Your task to perform on an android device: turn off location history Image 0: 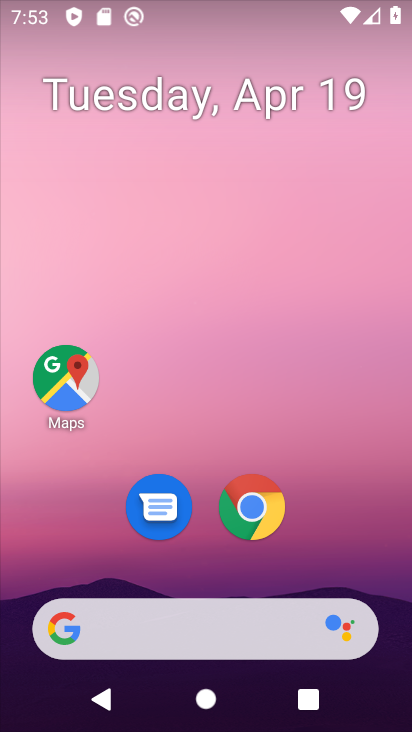
Step 0: drag from (331, 527) to (220, 71)
Your task to perform on an android device: turn off location history Image 1: 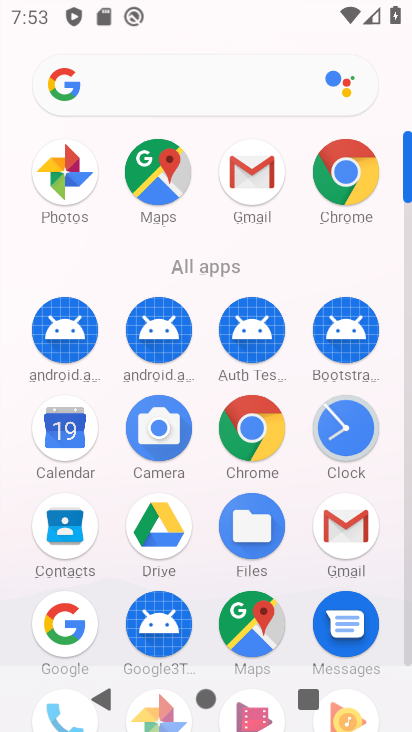
Step 1: drag from (178, 614) to (173, 182)
Your task to perform on an android device: turn off location history Image 2: 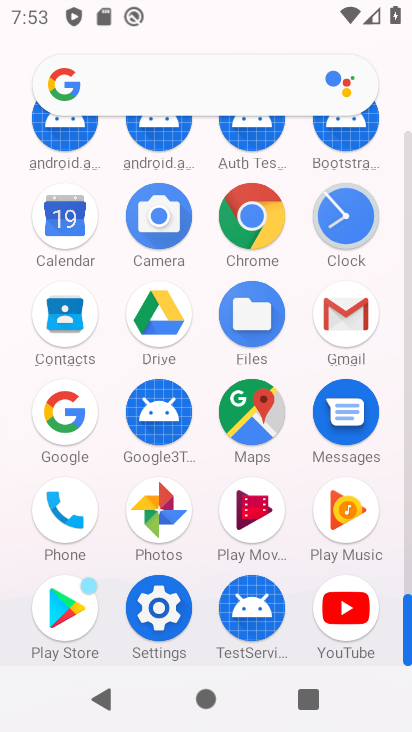
Step 2: click (164, 599)
Your task to perform on an android device: turn off location history Image 3: 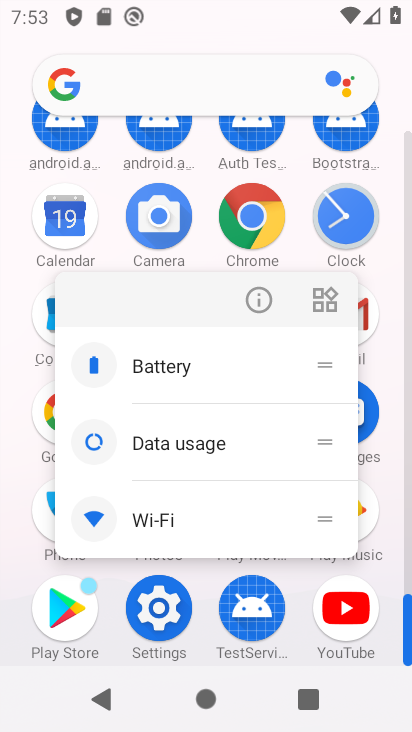
Step 3: click (164, 599)
Your task to perform on an android device: turn off location history Image 4: 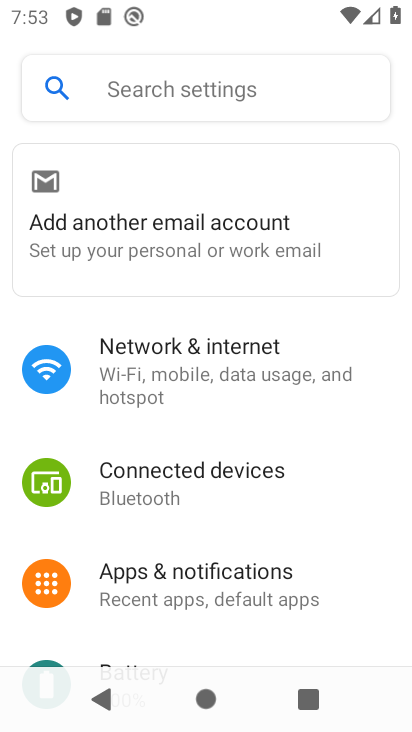
Step 4: drag from (187, 648) to (179, 218)
Your task to perform on an android device: turn off location history Image 5: 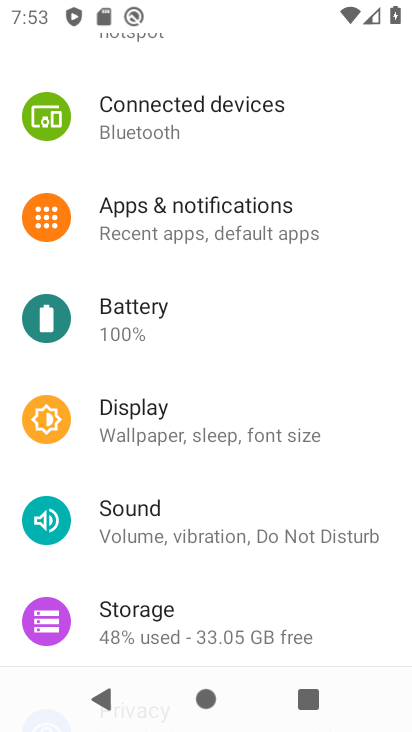
Step 5: drag from (133, 541) to (121, 178)
Your task to perform on an android device: turn off location history Image 6: 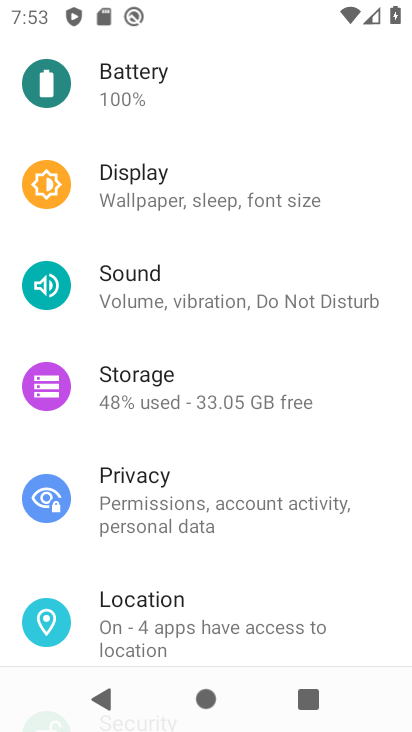
Step 6: click (116, 615)
Your task to perform on an android device: turn off location history Image 7: 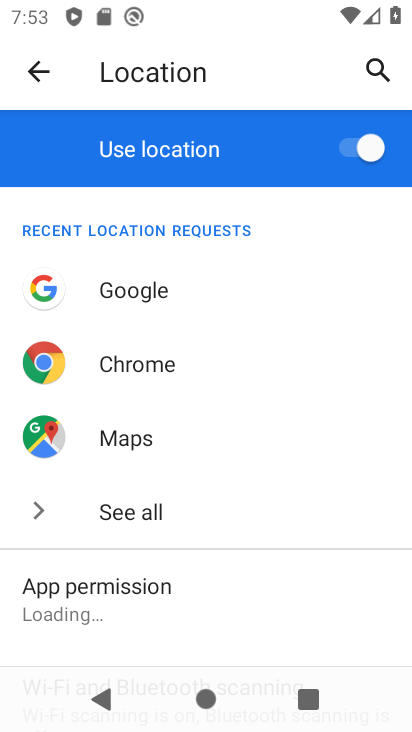
Step 7: drag from (212, 647) to (251, 272)
Your task to perform on an android device: turn off location history Image 8: 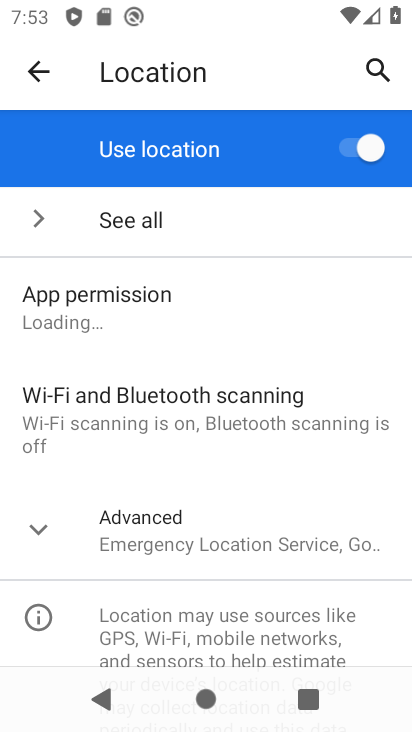
Step 8: click (224, 536)
Your task to perform on an android device: turn off location history Image 9: 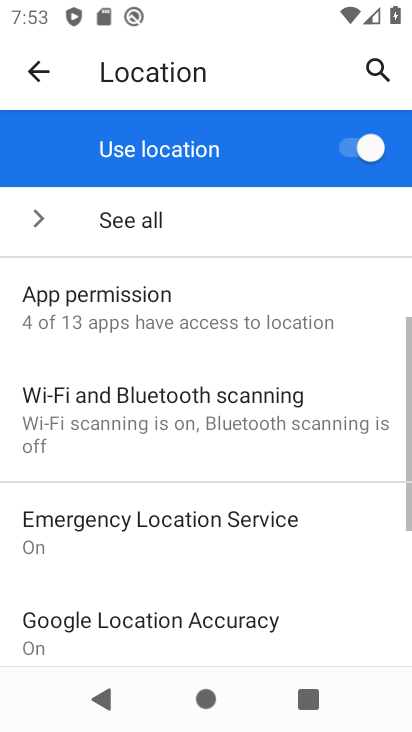
Step 9: drag from (203, 644) to (199, 438)
Your task to perform on an android device: turn off location history Image 10: 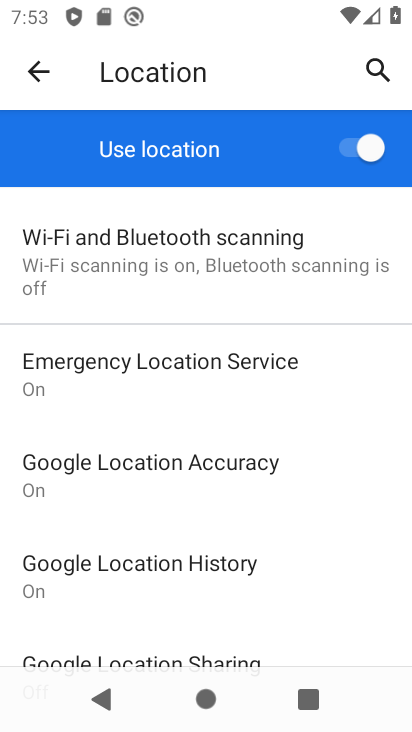
Step 10: click (145, 575)
Your task to perform on an android device: turn off location history Image 11: 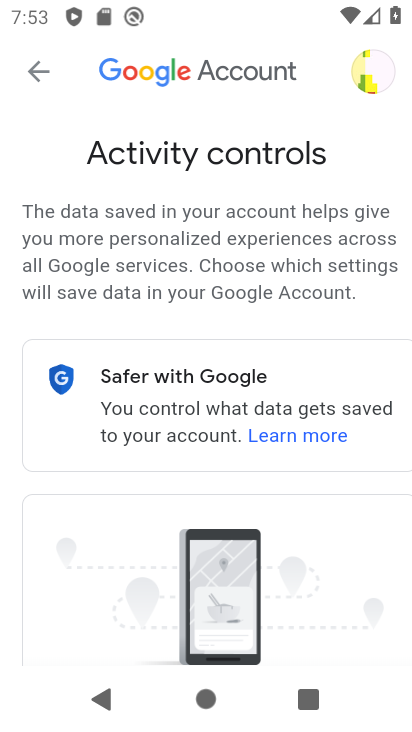
Step 11: drag from (326, 595) to (322, 196)
Your task to perform on an android device: turn off location history Image 12: 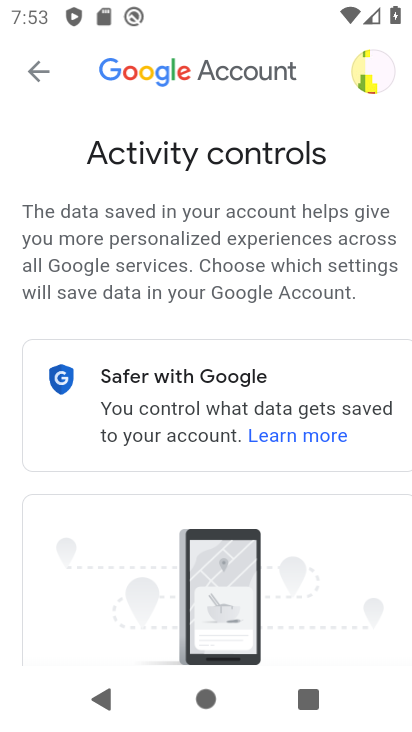
Step 12: drag from (166, 613) to (216, 250)
Your task to perform on an android device: turn off location history Image 13: 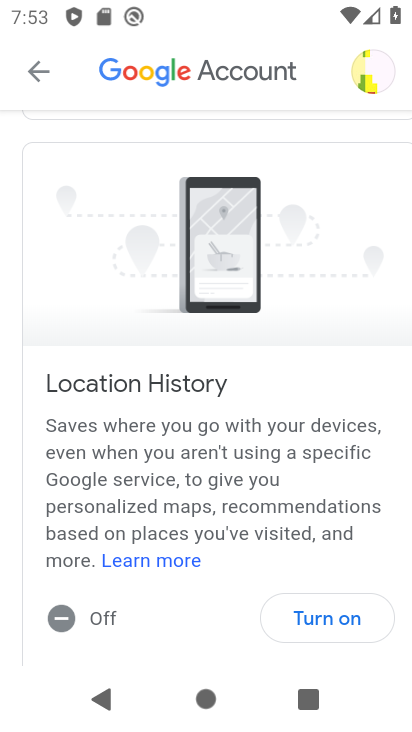
Step 13: click (58, 614)
Your task to perform on an android device: turn off location history Image 14: 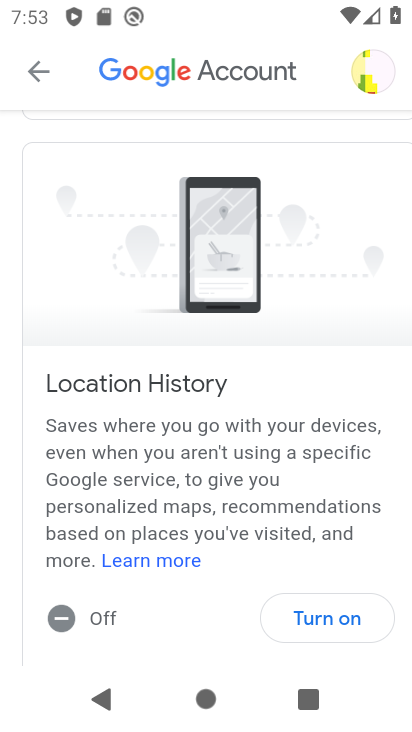
Step 14: click (105, 619)
Your task to perform on an android device: turn off location history Image 15: 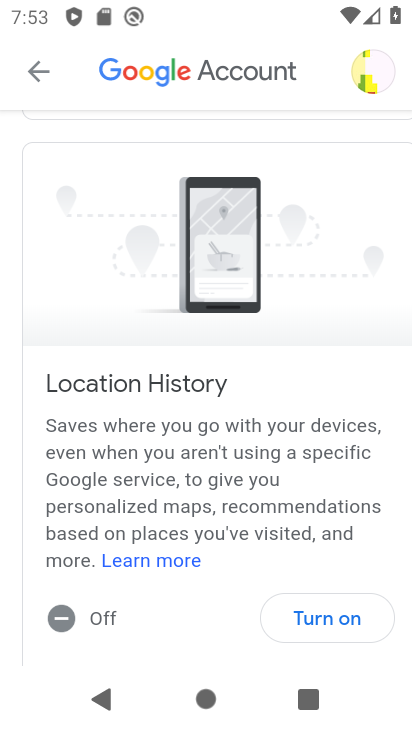
Step 15: click (106, 619)
Your task to perform on an android device: turn off location history Image 16: 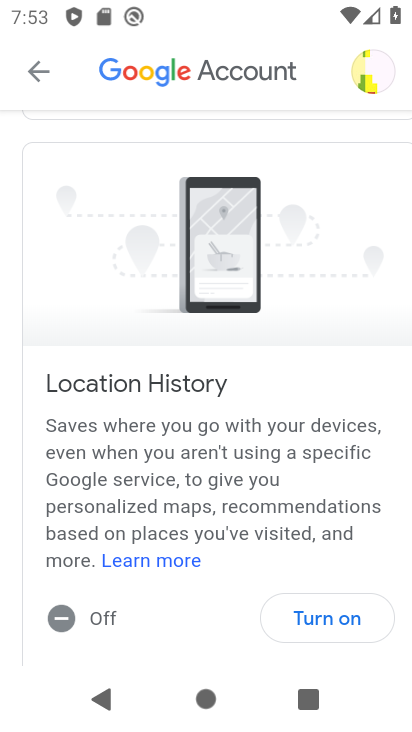
Step 16: drag from (200, 621) to (218, 447)
Your task to perform on an android device: turn off location history Image 17: 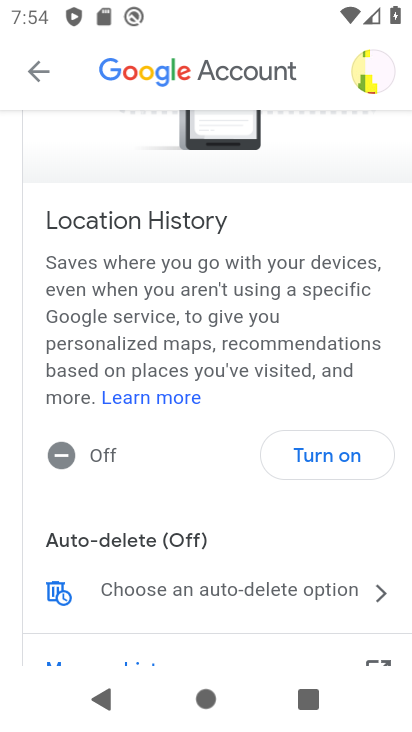
Step 17: drag from (204, 584) to (206, 370)
Your task to perform on an android device: turn off location history Image 18: 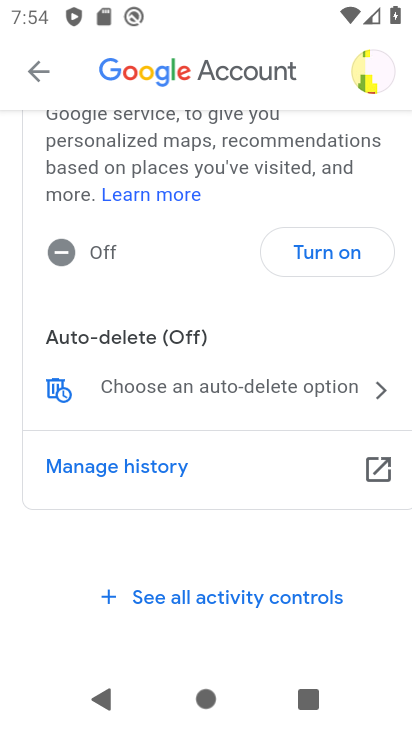
Step 18: click (256, 386)
Your task to perform on an android device: turn off location history Image 19: 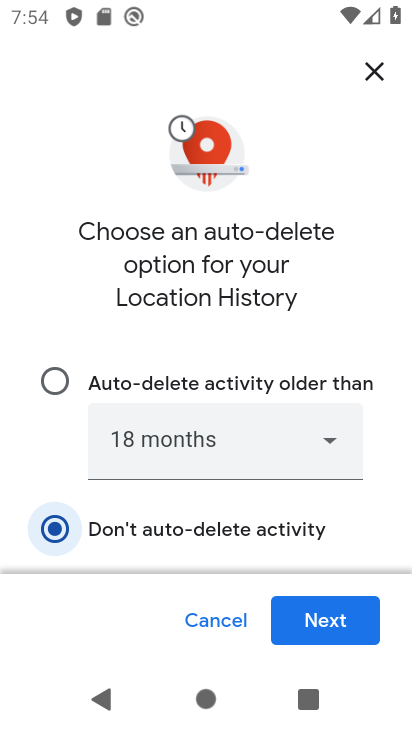
Step 19: drag from (274, 514) to (279, 240)
Your task to perform on an android device: turn off location history Image 20: 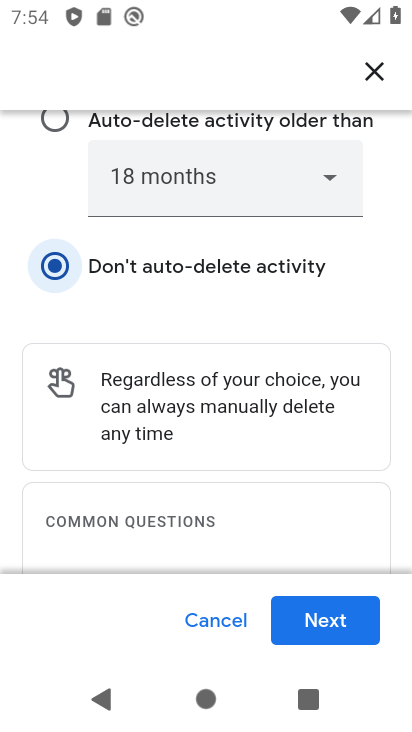
Step 20: drag from (263, 528) to (257, 199)
Your task to perform on an android device: turn off location history Image 21: 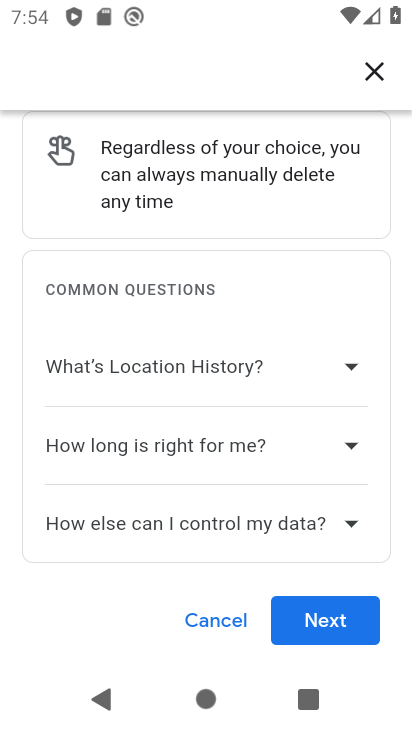
Step 21: click (212, 625)
Your task to perform on an android device: turn off location history Image 22: 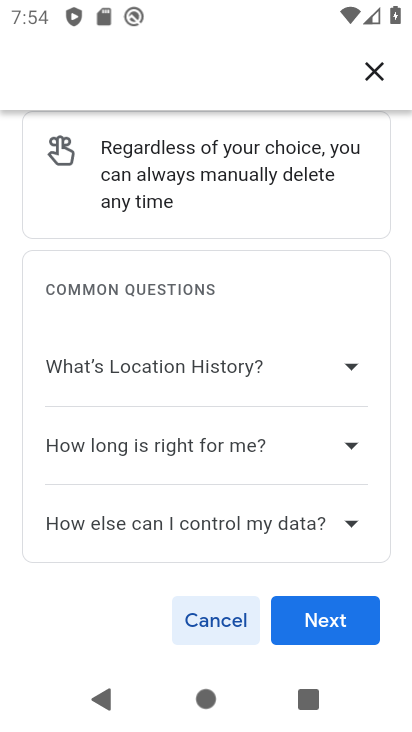
Step 22: press back button
Your task to perform on an android device: turn off location history Image 23: 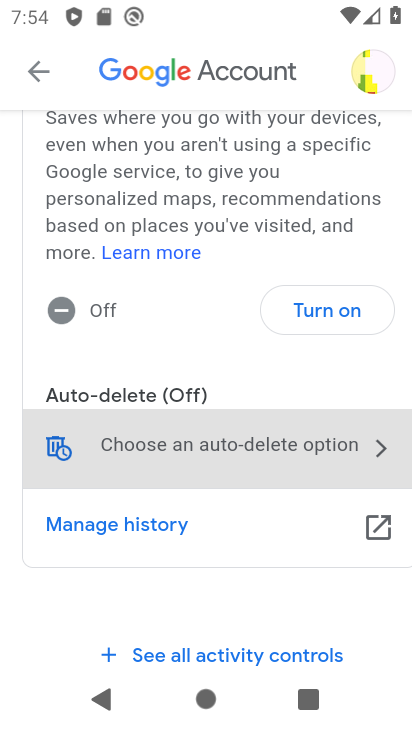
Step 23: click (92, 305)
Your task to perform on an android device: turn off location history Image 24: 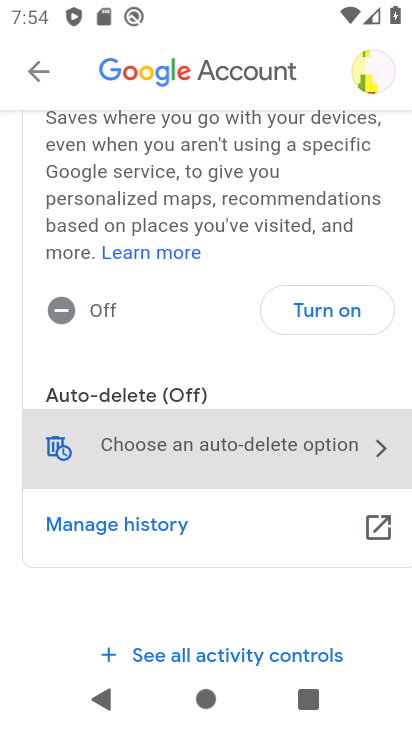
Step 24: click (60, 306)
Your task to perform on an android device: turn off location history Image 25: 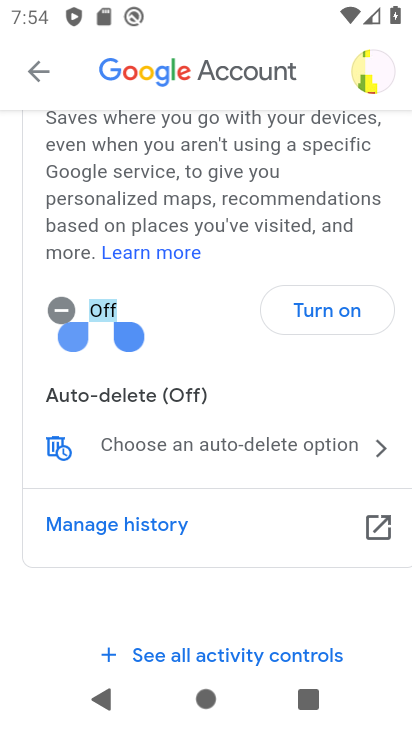
Step 25: click (63, 311)
Your task to perform on an android device: turn off location history Image 26: 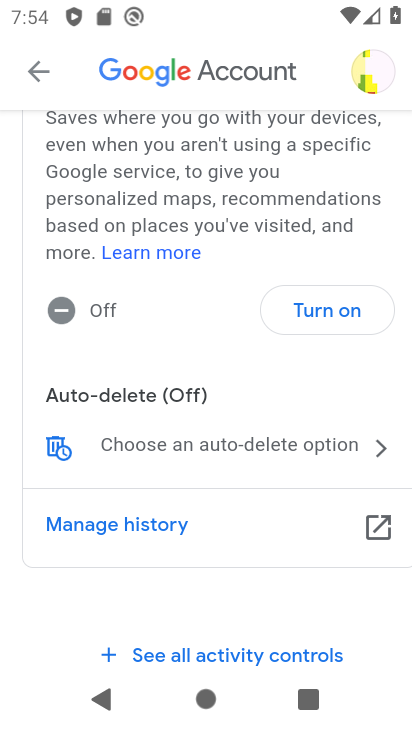
Step 26: click (64, 312)
Your task to perform on an android device: turn off location history Image 27: 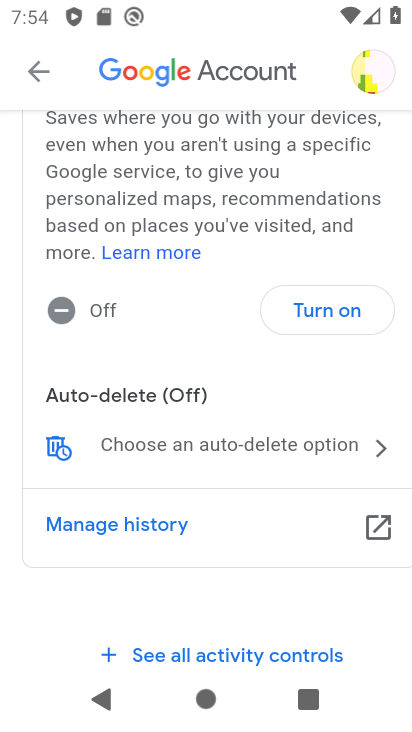
Step 27: click (347, 326)
Your task to perform on an android device: turn off location history Image 28: 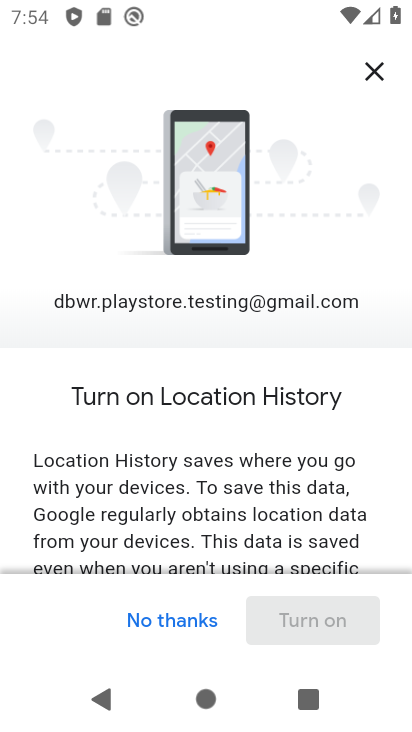
Step 28: drag from (253, 413) to (243, 165)
Your task to perform on an android device: turn off location history Image 29: 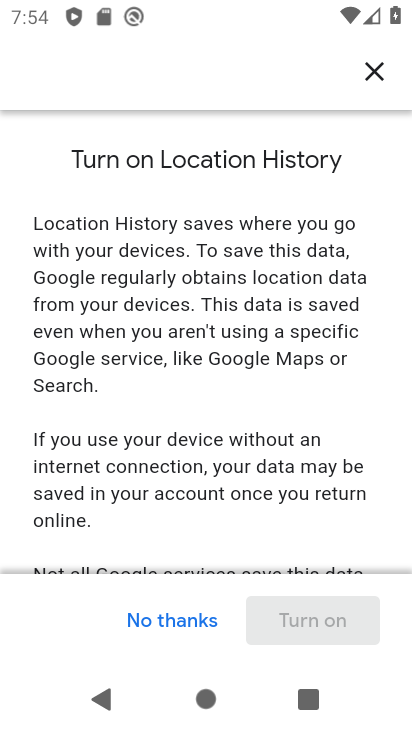
Step 29: drag from (212, 497) to (223, 208)
Your task to perform on an android device: turn off location history Image 30: 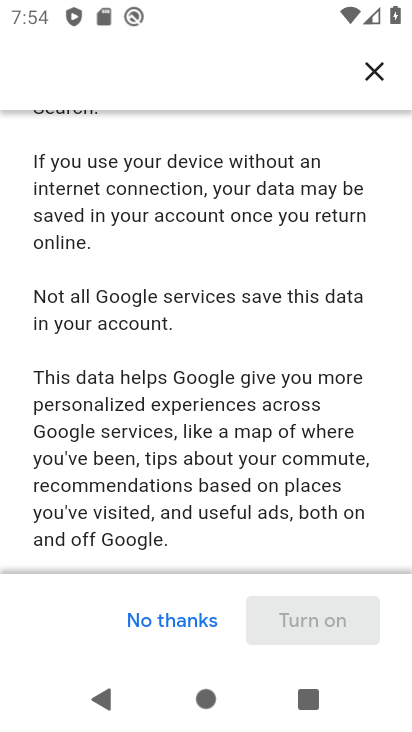
Step 30: drag from (246, 517) to (222, 168)
Your task to perform on an android device: turn off location history Image 31: 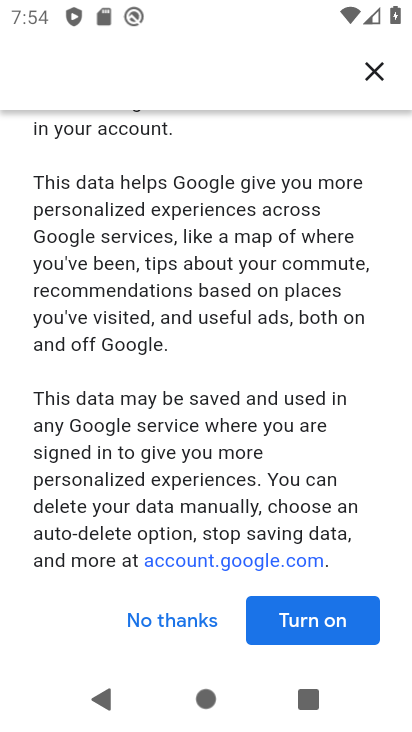
Step 31: click (284, 620)
Your task to perform on an android device: turn off location history Image 32: 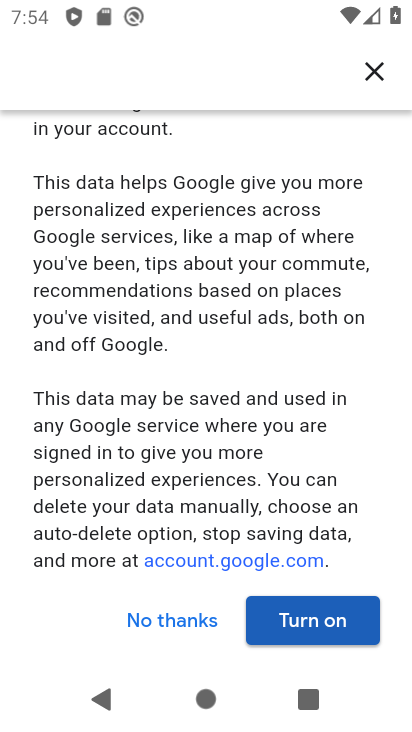
Step 32: click (151, 616)
Your task to perform on an android device: turn off location history Image 33: 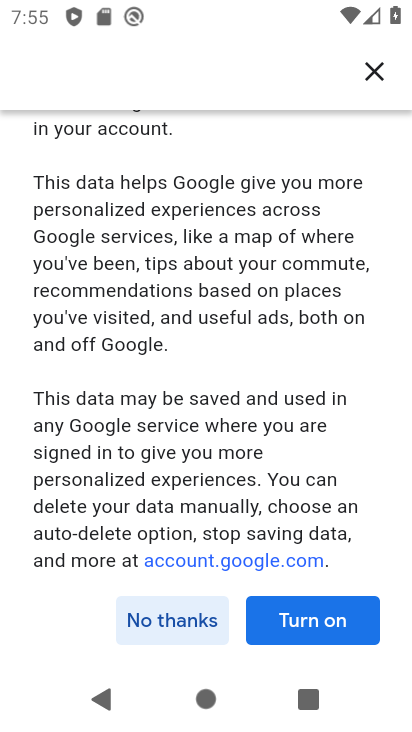
Step 33: click (181, 621)
Your task to perform on an android device: turn off location history Image 34: 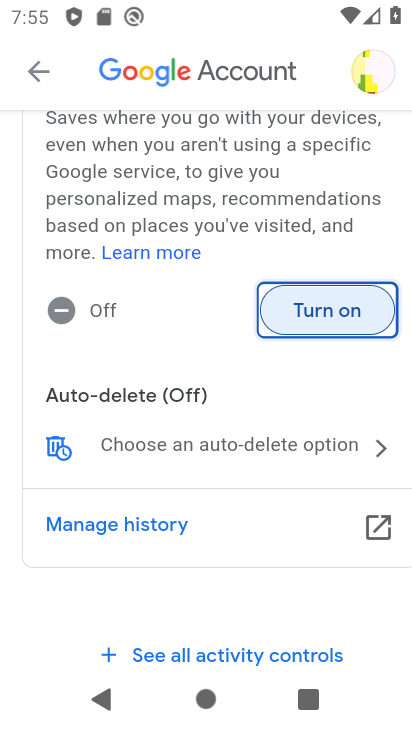
Step 34: click (76, 311)
Your task to perform on an android device: turn off location history Image 35: 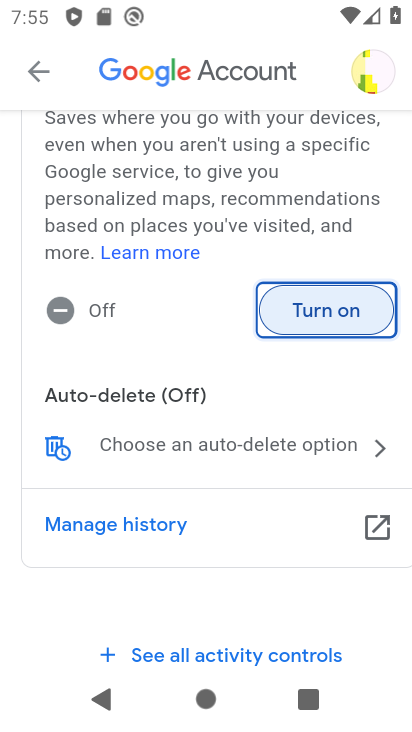
Step 35: click (85, 314)
Your task to perform on an android device: turn off location history Image 36: 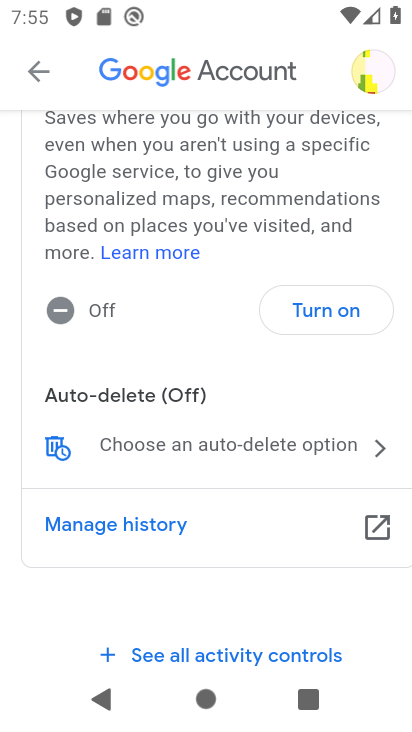
Step 36: click (102, 307)
Your task to perform on an android device: turn off location history Image 37: 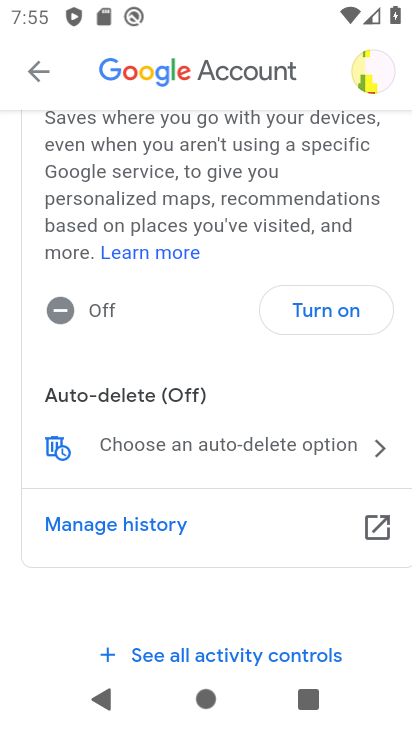
Step 37: click (102, 307)
Your task to perform on an android device: turn off location history Image 38: 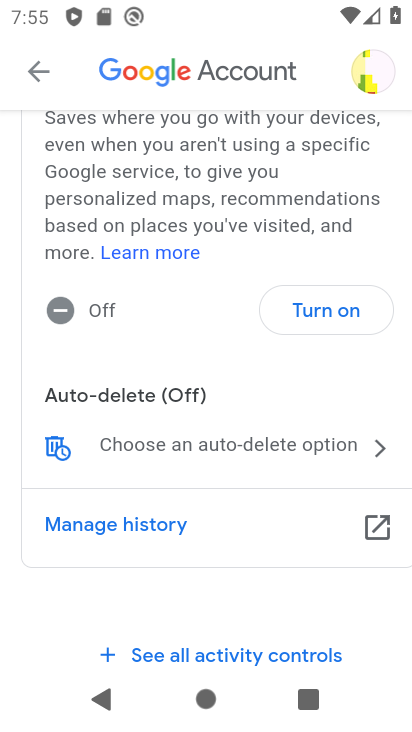
Step 38: click (102, 307)
Your task to perform on an android device: turn off location history Image 39: 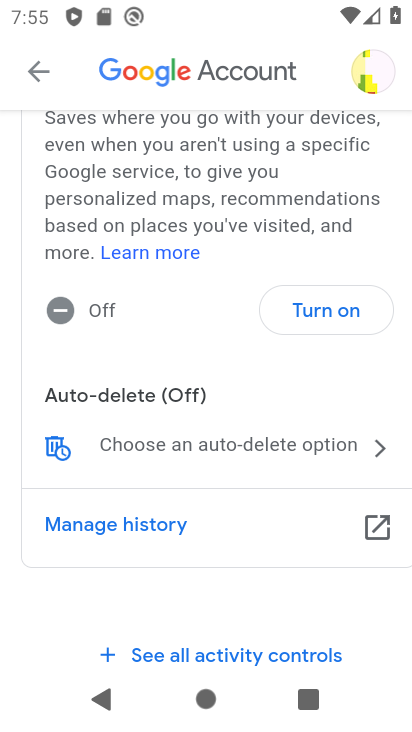
Step 39: press back button
Your task to perform on an android device: turn off location history Image 40: 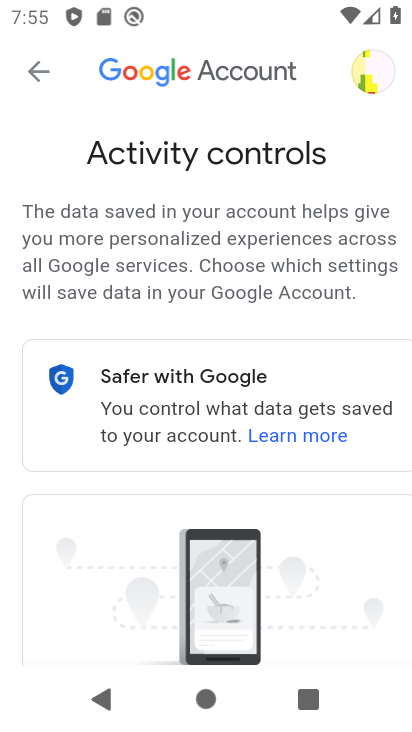
Step 40: drag from (292, 628) to (268, 185)
Your task to perform on an android device: turn off location history Image 41: 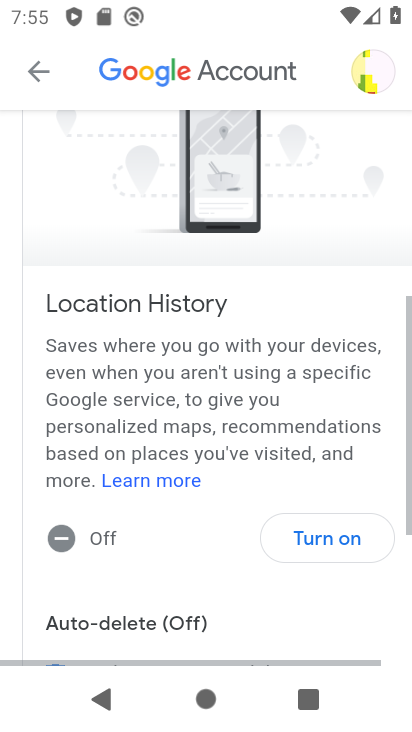
Step 41: click (262, 365)
Your task to perform on an android device: turn off location history Image 42: 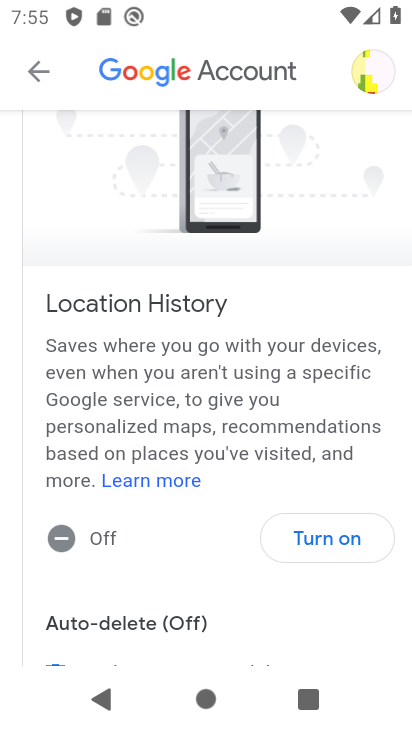
Step 42: press back button
Your task to perform on an android device: turn off location history Image 43: 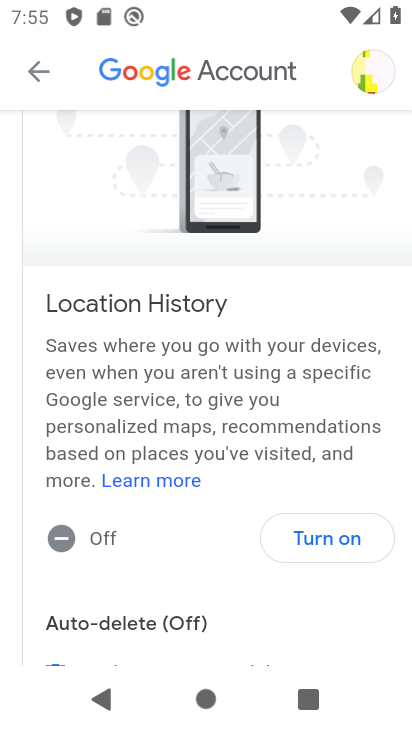
Step 43: press back button
Your task to perform on an android device: turn off location history Image 44: 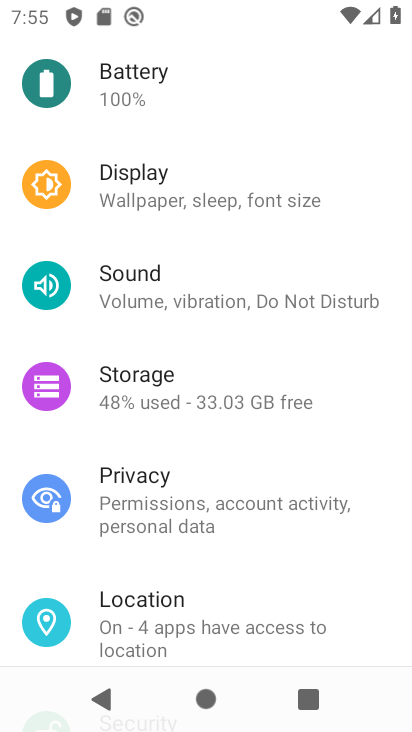
Step 44: click (161, 622)
Your task to perform on an android device: turn off location history Image 45: 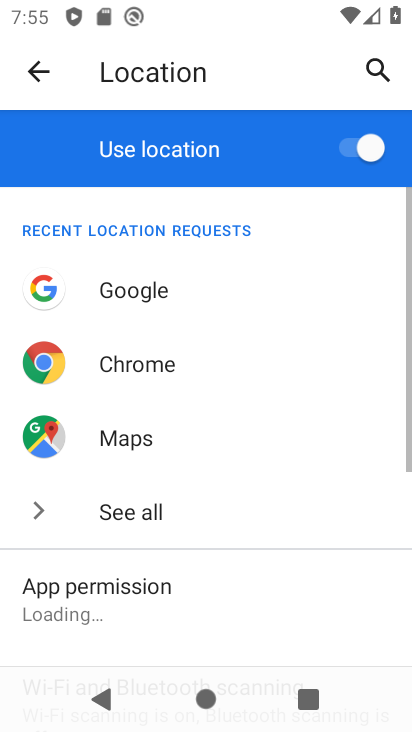
Step 45: drag from (161, 597) to (152, 160)
Your task to perform on an android device: turn off location history Image 46: 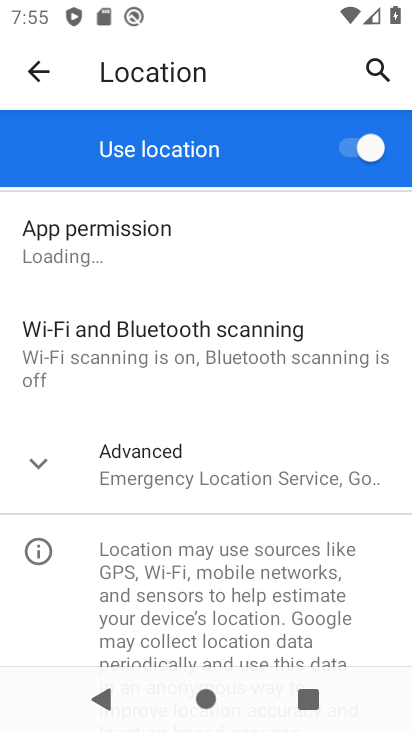
Step 46: click (156, 472)
Your task to perform on an android device: turn off location history Image 47: 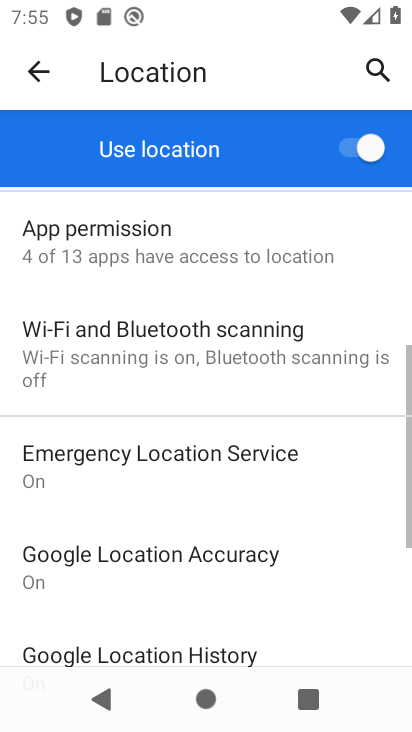
Step 47: drag from (162, 631) to (192, 397)
Your task to perform on an android device: turn off location history Image 48: 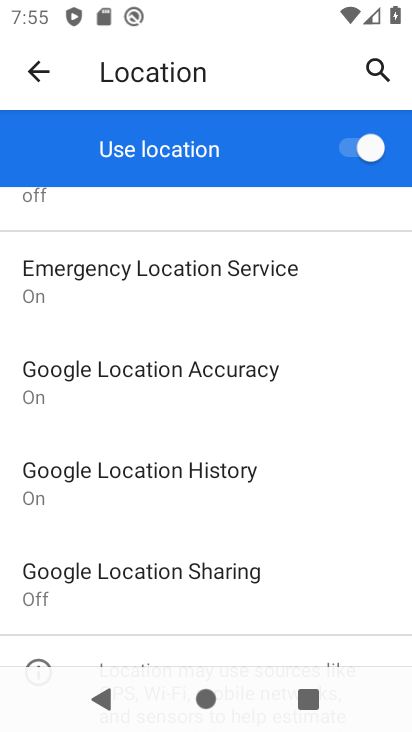
Step 48: click (43, 474)
Your task to perform on an android device: turn off location history Image 49: 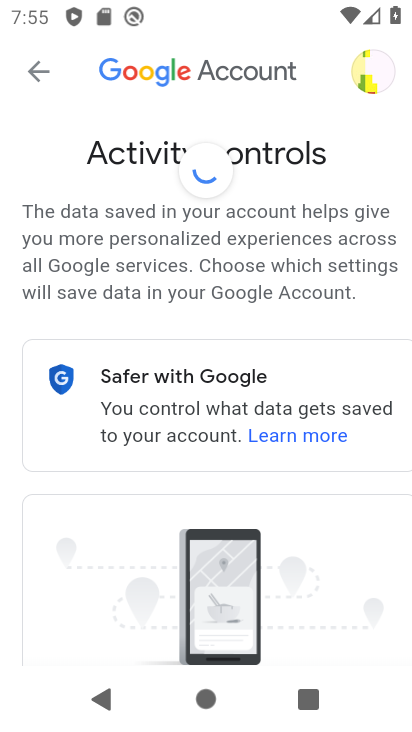
Step 49: drag from (151, 570) to (178, 180)
Your task to perform on an android device: turn off location history Image 50: 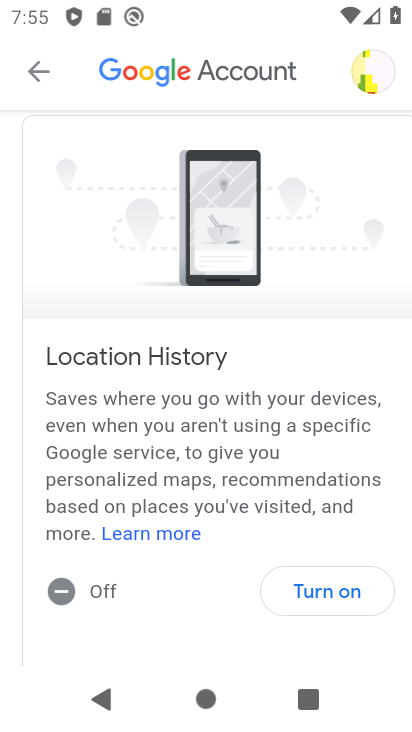
Step 50: click (67, 593)
Your task to perform on an android device: turn off location history Image 51: 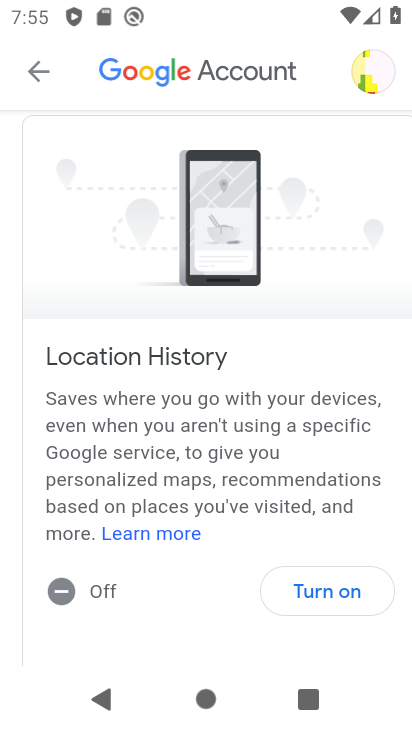
Step 51: click (53, 591)
Your task to perform on an android device: turn off location history Image 52: 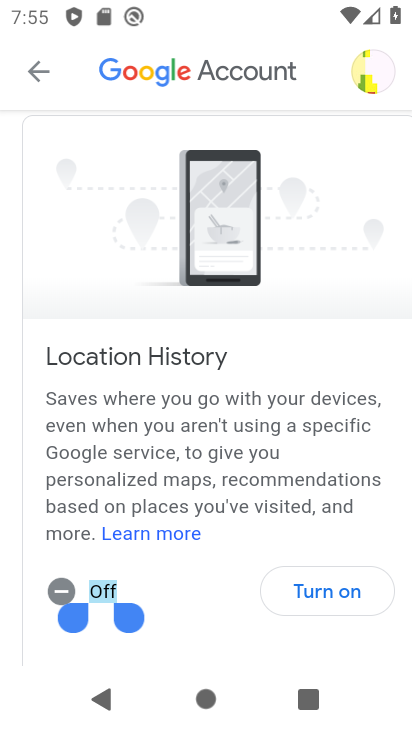
Step 52: click (304, 599)
Your task to perform on an android device: turn off location history Image 53: 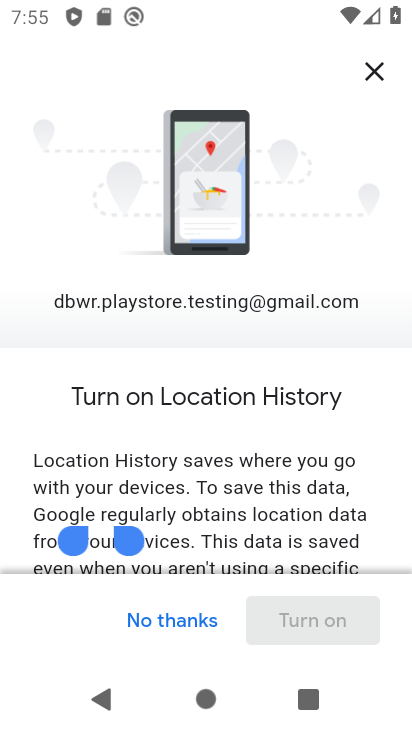
Step 53: drag from (253, 497) to (224, 99)
Your task to perform on an android device: turn off location history Image 54: 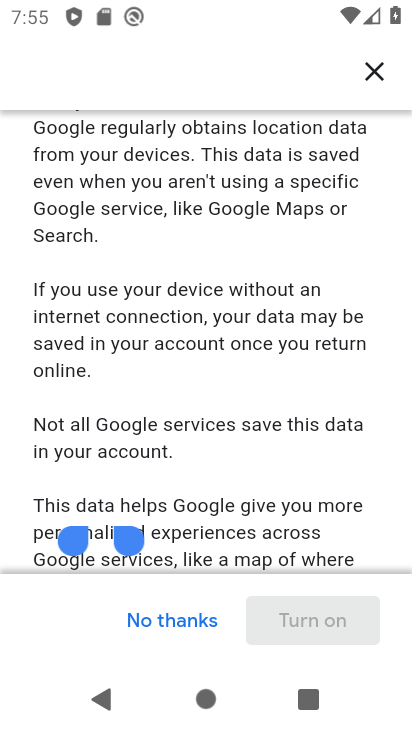
Step 54: drag from (214, 517) to (198, 154)
Your task to perform on an android device: turn off location history Image 55: 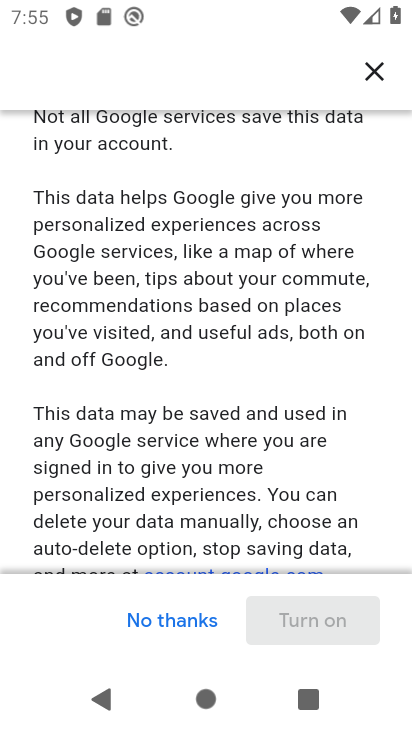
Step 55: drag from (219, 504) to (211, 189)
Your task to perform on an android device: turn off location history Image 56: 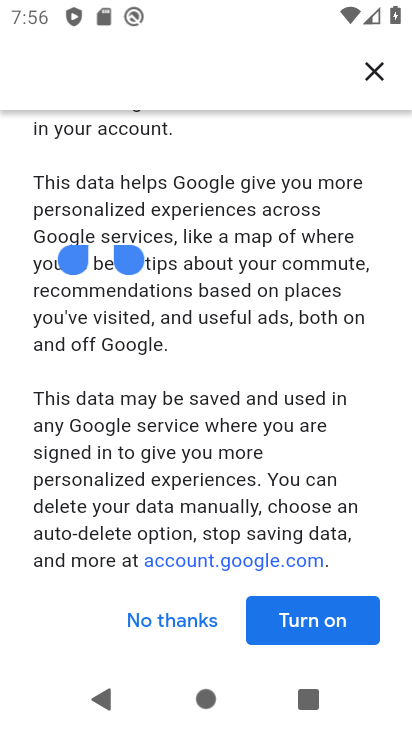
Step 56: click (292, 618)
Your task to perform on an android device: turn off location history Image 57: 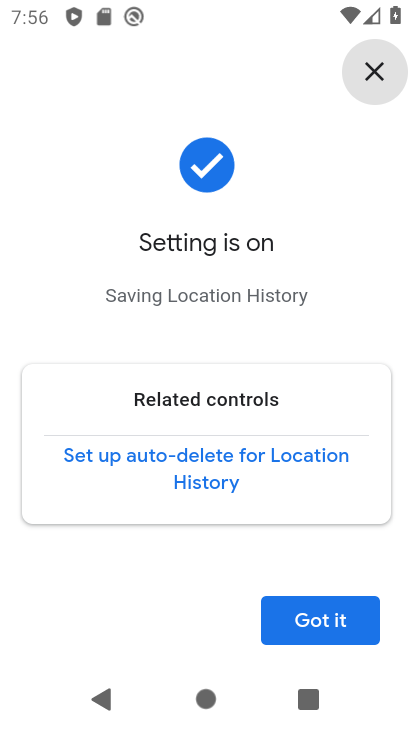
Step 57: click (338, 628)
Your task to perform on an android device: turn off location history Image 58: 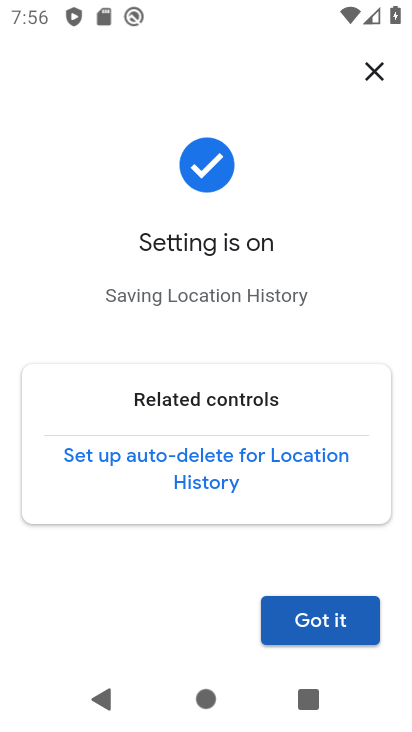
Step 58: click (310, 629)
Your task to perform on an android device: turn off location history Image 59: 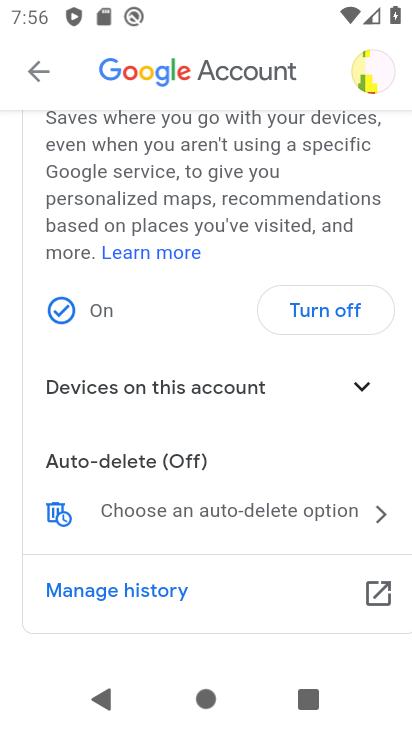
Step 59: click (348, 319)
Your task to perform on an android device: turn off location history Image 60: 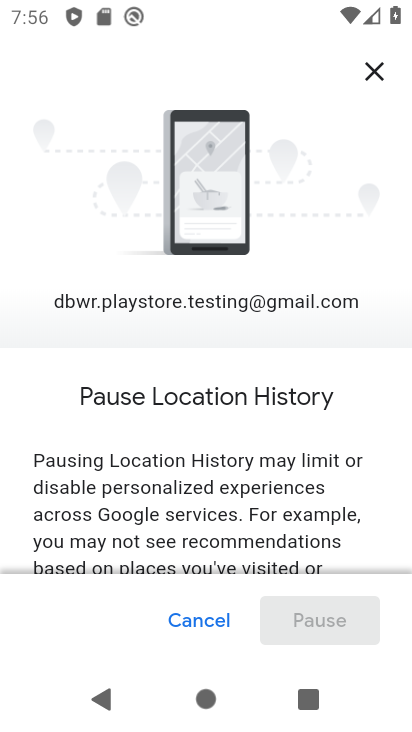
Step 60: drag from (284, 545) to (250, 118)
Your task to perform on an android device: turn off location history Image 61: 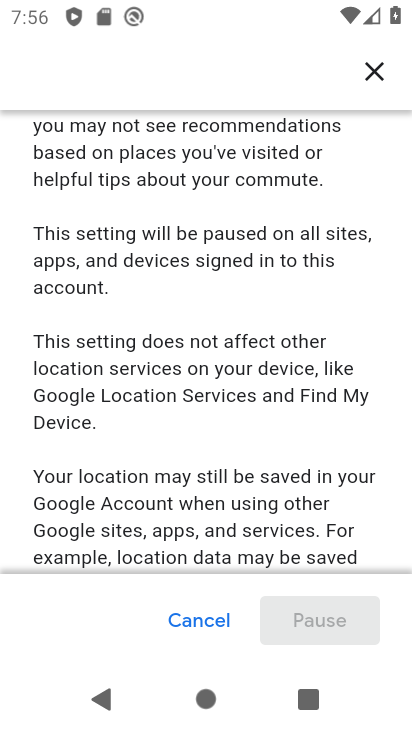
Step 61: drag from (252, 538) to (262, 201)
Your task to perform on an android device: turn off location history Image 62: 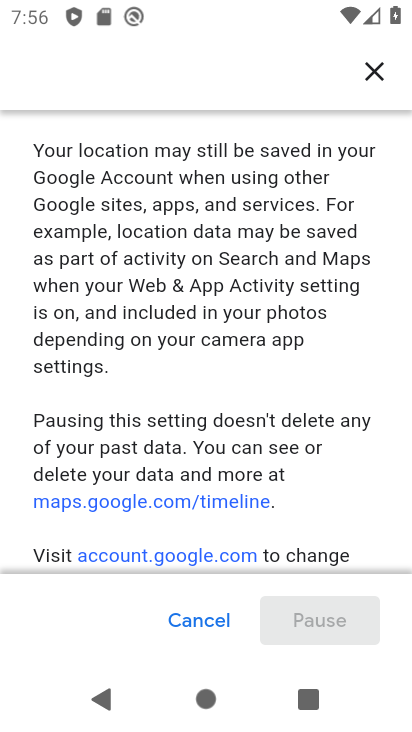
Step 62: drag from (260, 546) to (277, 175)
Your task to perform on an android device: turn off location history Image 63: 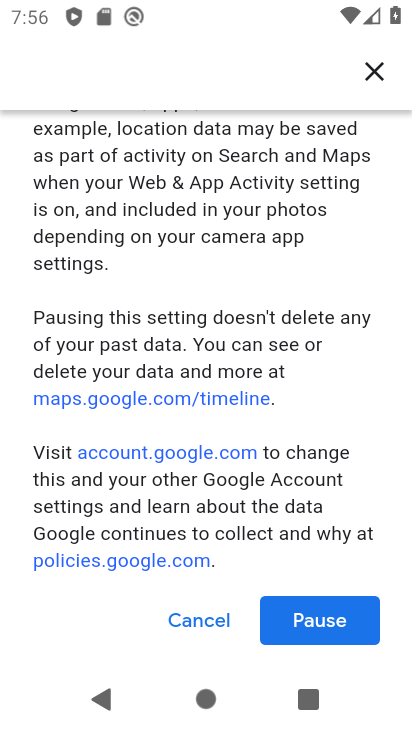
Step 63: click (313, 633)
Your task to perform on an android device: turn off location history Image 64: 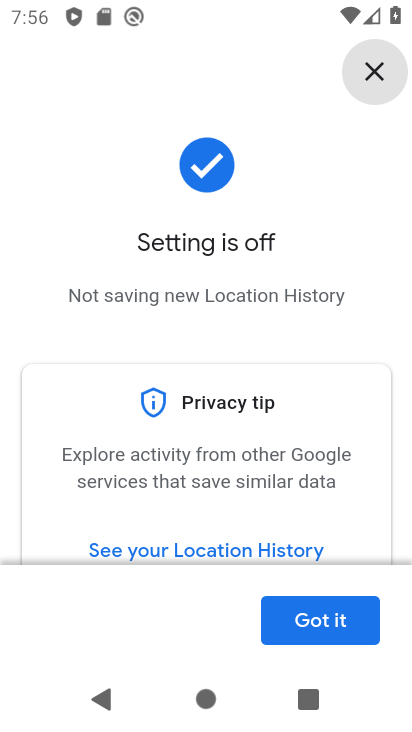
Step 64: task complete